Your task to perform on an android device: toggle notifications settings in the gmail app Image 0: 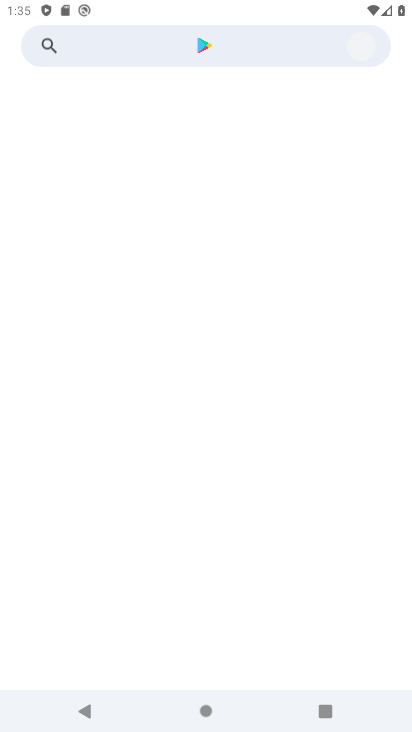
Step 0: press home button
Your task to perform on an android device: toggle notifications settings in the gmail app Image 1: 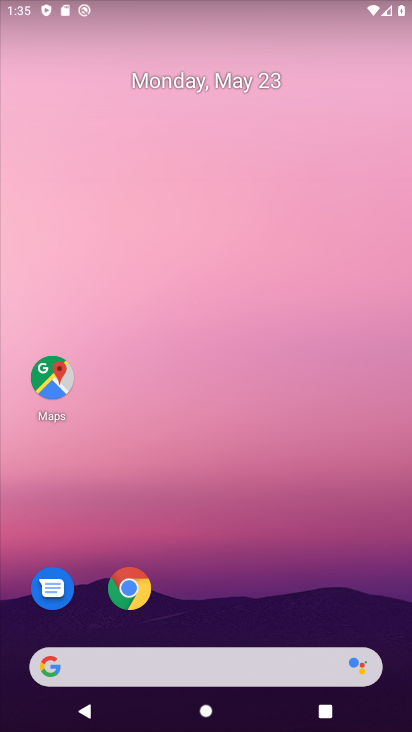
Step 1: drag from (226, 683) to (213, 0)
Your task to perform on an android device: toggle notifications settings in the gmail app Image 2: 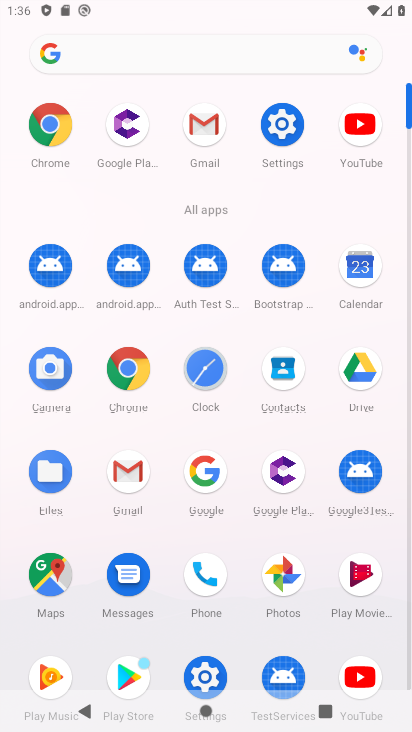
Step 2: click (132, 476)
Your task to perform on an android device: toggle notifications settings in the gmail app Image 3: 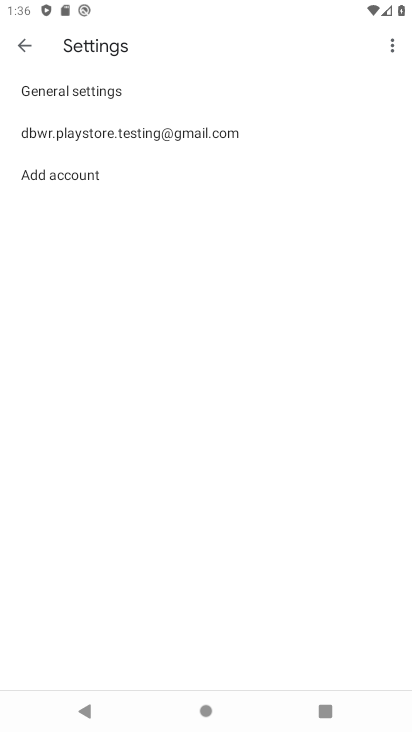
Step 3: click (151, 133)
Your task to perform on an android device: toggle notifications settings in the gmail app Image 4: 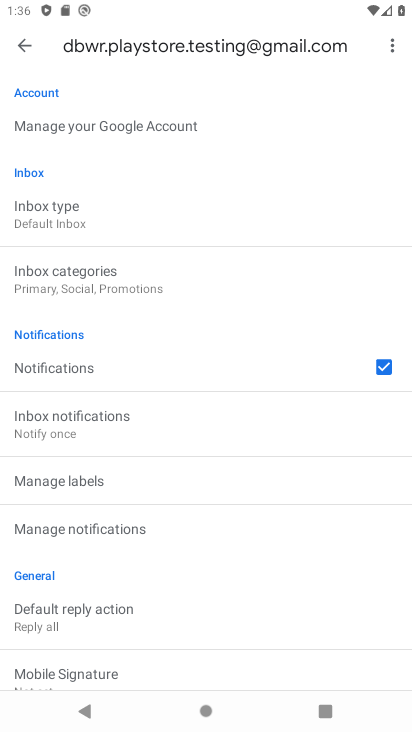
Step 4: drag from (97, 622) to (99, 465)
Your task to perform on an android device: toggle notifications settings in the gmail app Image 5: 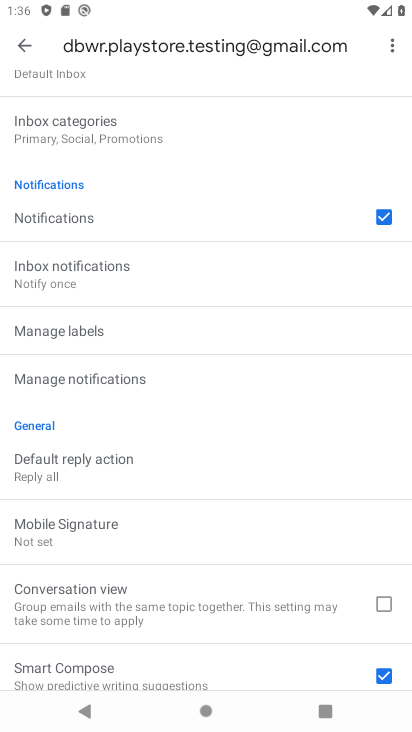
Step 5: click (387, 212)
Your task to perform on an android device: toggle notifications settings in the gmail app Image 6: 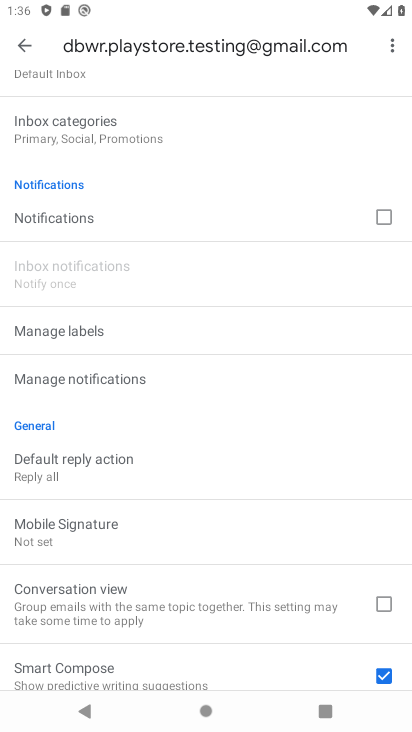
Step 6: task complete